Your task to perform on an android device: Go to eBay Image 0: 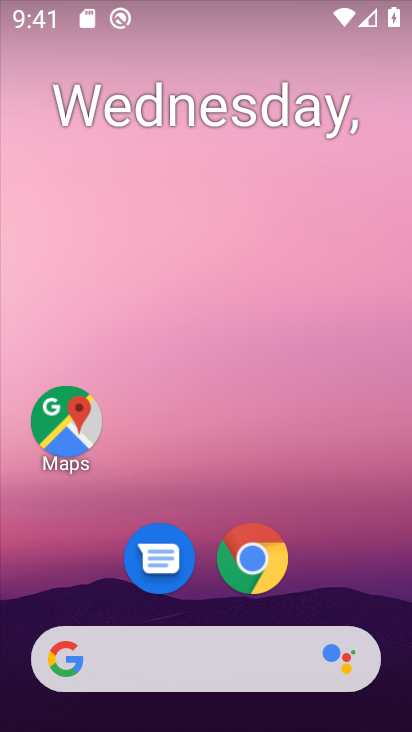
Step 0: drag from (371, 548) to (387, 147)
Your task to perform on an android device: Go to eBay Image 1: 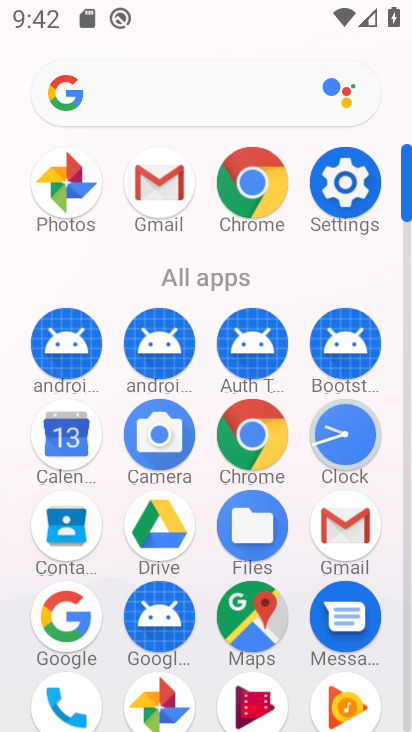
Step 1: click (259, 437)
Your task to perform on an android device: Go to eBay Image 2: 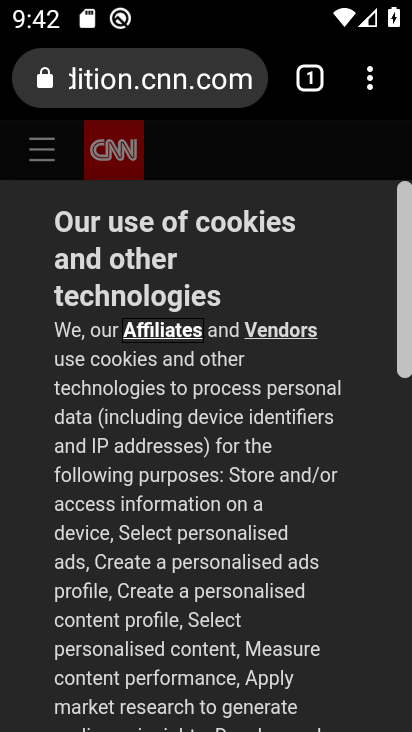
Step 2: click (196, 76)
Your task to perform on an android device: Go to eBay Image 3: 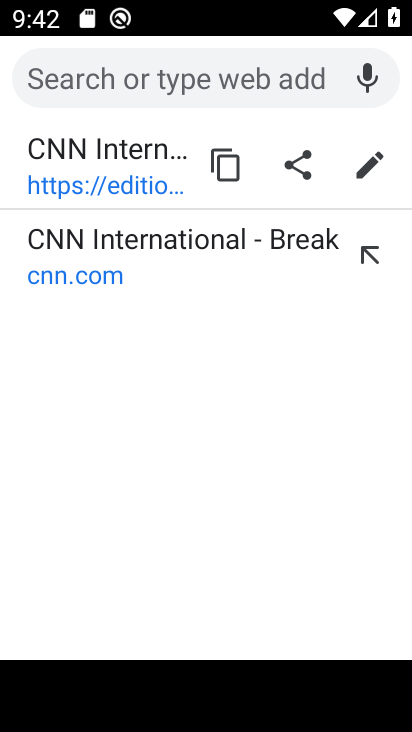
Step 3: type "ebay"
Your task to perform on an android device: Go to eBay Image 4: 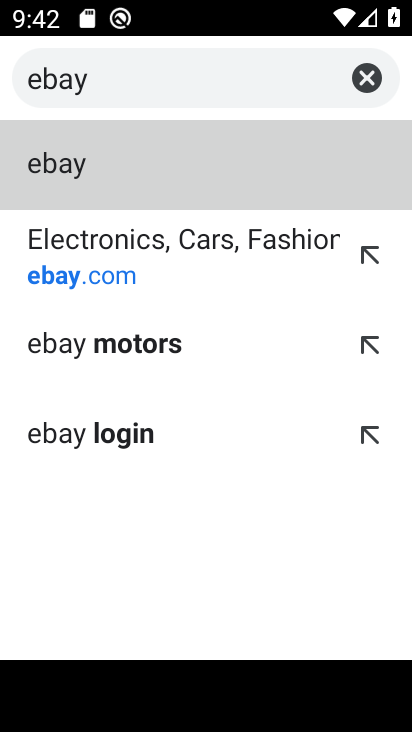
Step 4: click (215, 164)
Your task to perform on an android device: Go to eBay Image 5: 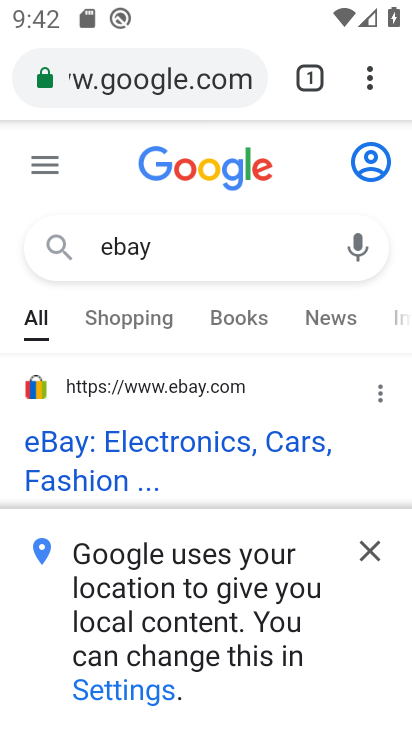
Step 5: task complete